Your task to perform on an android device: turn on translation in the chrome app Image 0: 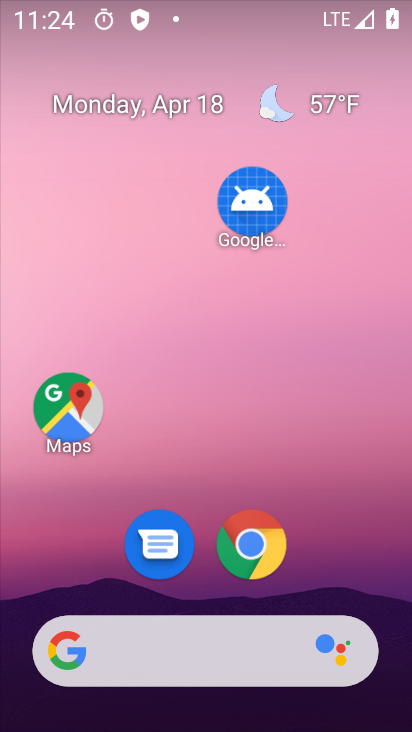
Step 0: drag from (279, 515) to (297, 188)
Your task to perform on an android device: turn on translation in the chrome app Image 1: 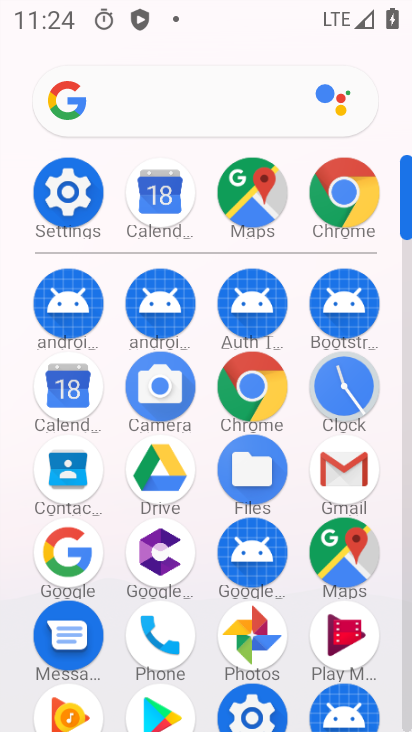
Step 1: click (328, 195)
Your task to perform on an android device: turn on translation in the chrome app Image 2: 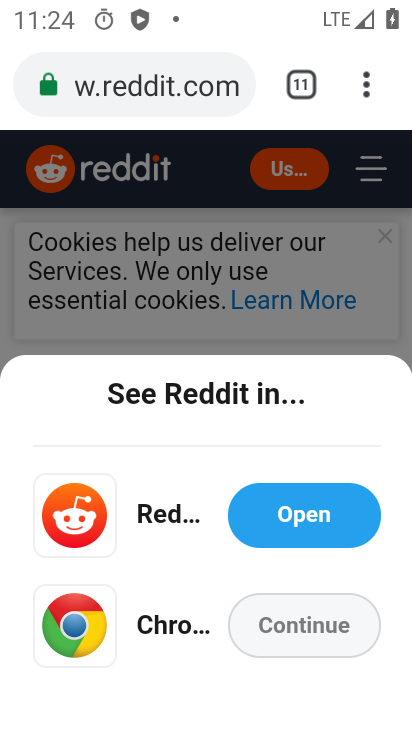
Step 2: click (364, 75)
Your task to perform on an android device: turn on translation in the chrome app Image 3: 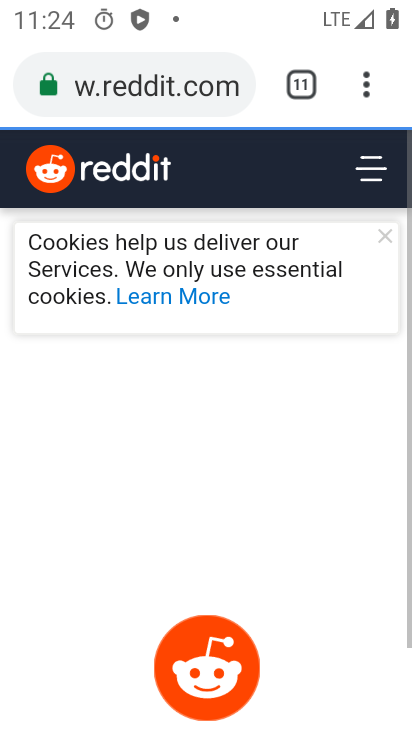
Step 3: click (364, 75)
Your task to perform on an android device: turn on translation in the chrome app Image 4: 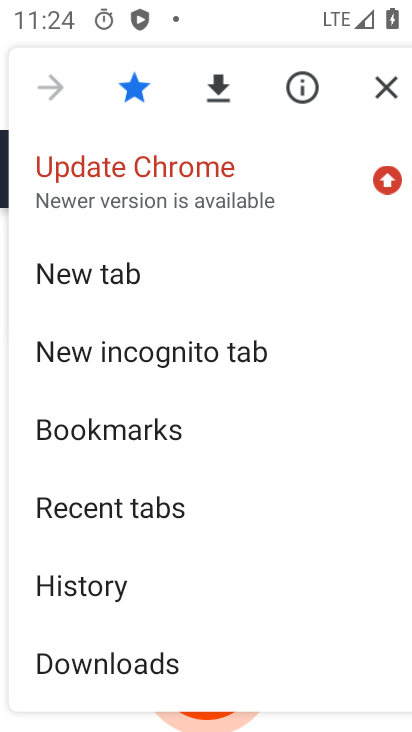
Step 4: drag from (222, 624) to (251, 230)
Your task to perform on an android device: turn on translation in the chrome app Image 5: 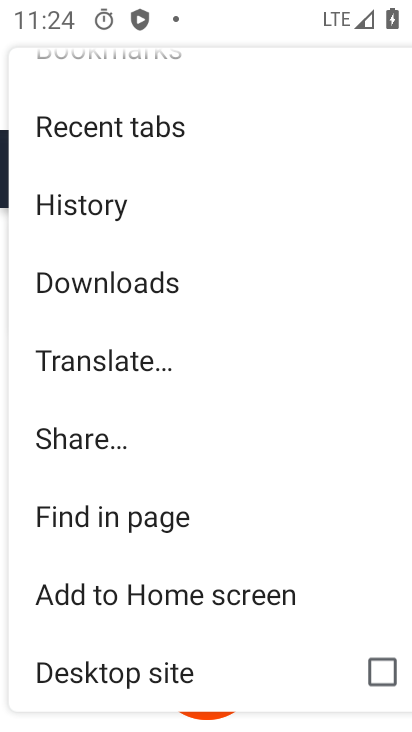
Step 5: drag from (153, 562) to (219, 137)
Your task to perform on an android device: turn on translation in the chrome app Image 6: 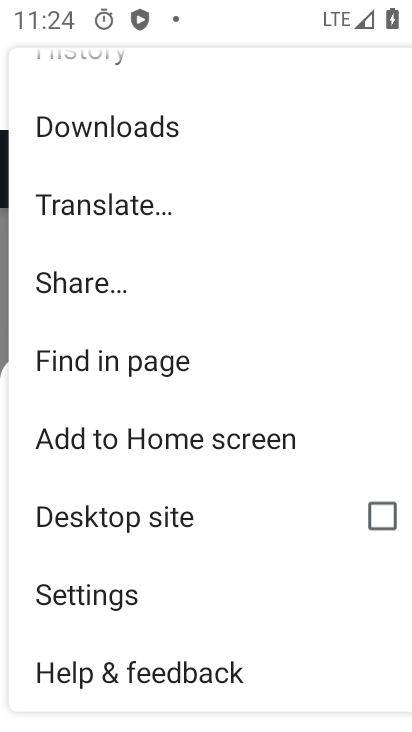
Step 6: click (141, 583)
Your task to perform on an android device: turn on translation in the chrome app Image 7: 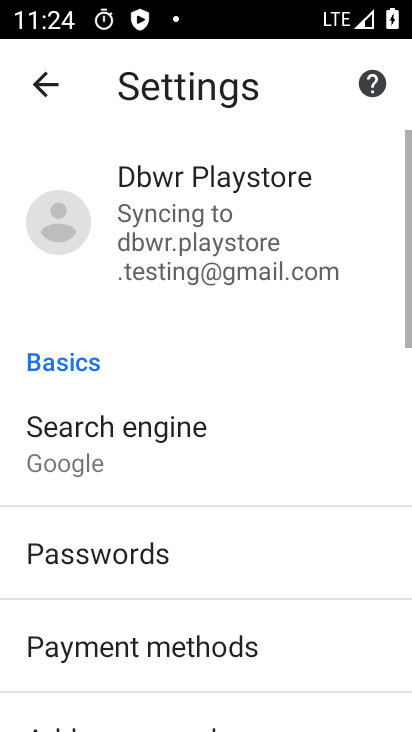
Step 7: drag from (162, 603) to (230, 211)
Your task to perform on an android device: turn on translation in the chrome app Image 8: 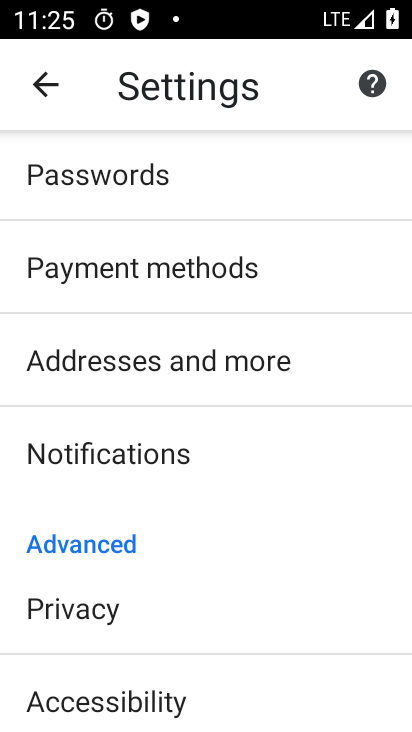
Step 8: drag from (236, 581) to (277, 162)
Your task to perform on an android device: turn on translation in the chrome app Image 9: 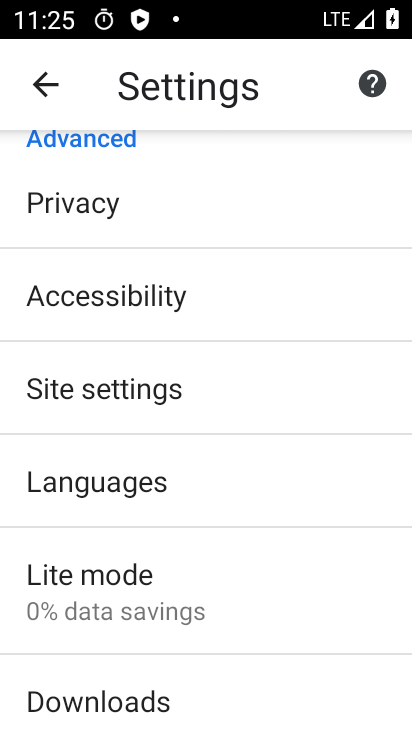
Step 9: click (184, 508)
Your task to perform on an android device: turn on translation in the chrome app Image 10: 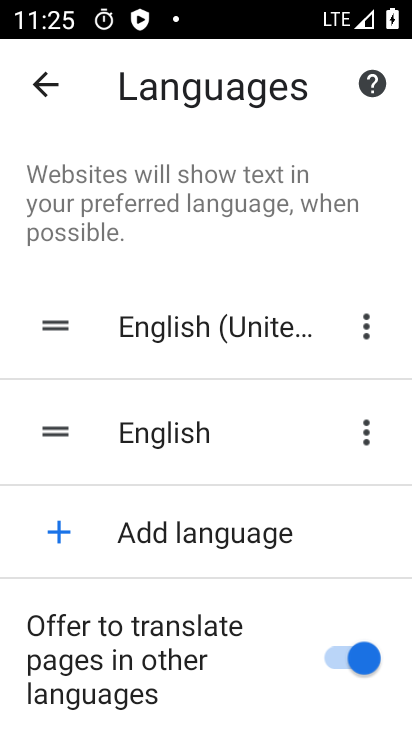
Step 10: task complete